Your task to perform on an android device: Open network settings Image 0: 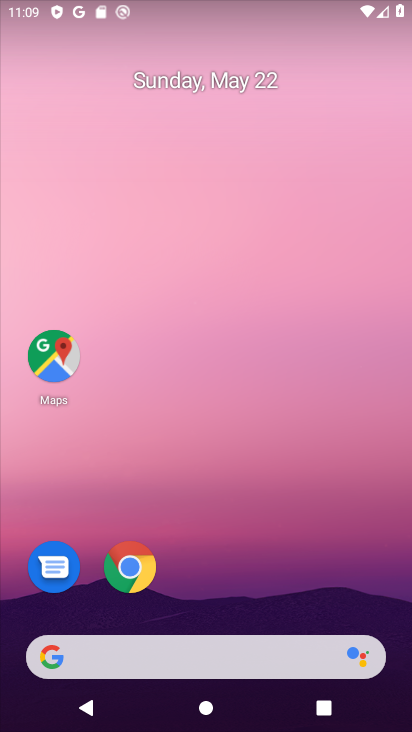
Step 0: drag from (291, 44) to (162, 633)
Your task to perform on an android device: Open network settings Image 1: 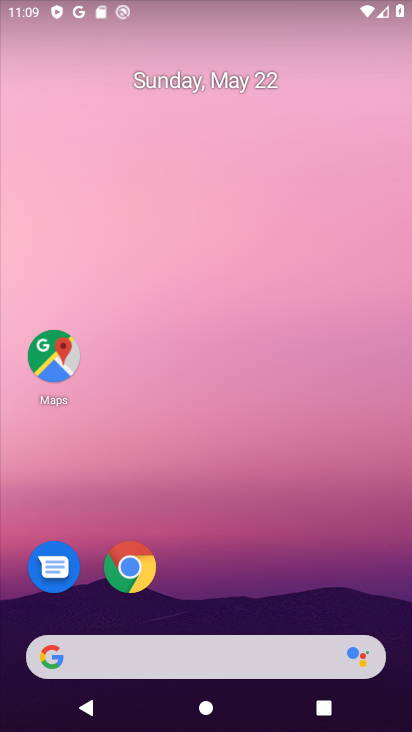
Step 1: drag from (284, 110) to (209, 429)
Your task to perform on an android device: Open network settings Image 2: 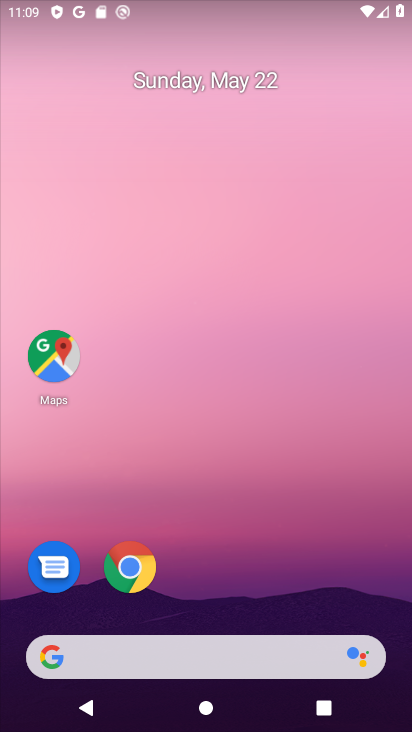
Step 2: drag from (207, 137) to (198, 666)
Your task to perform on an android device: Open network settings Image 3: 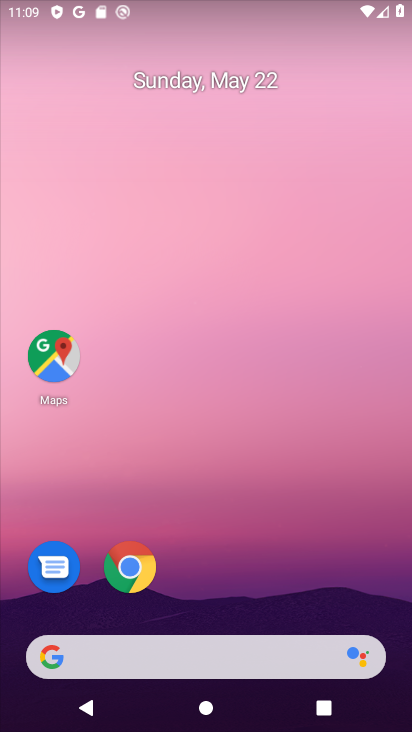
Step 3: drag from (209, 17) to (247, 409)
Your task to perform on an android device: Open network settings Image 4: 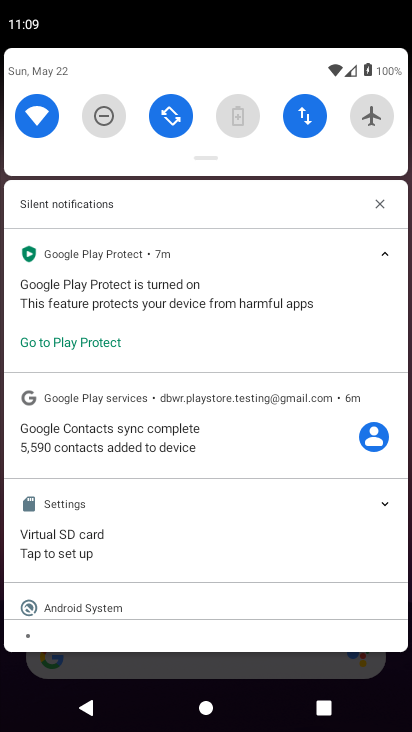
Step 4: click (300, 119)
Your task to perform on an android device: Open network settings Image 5: 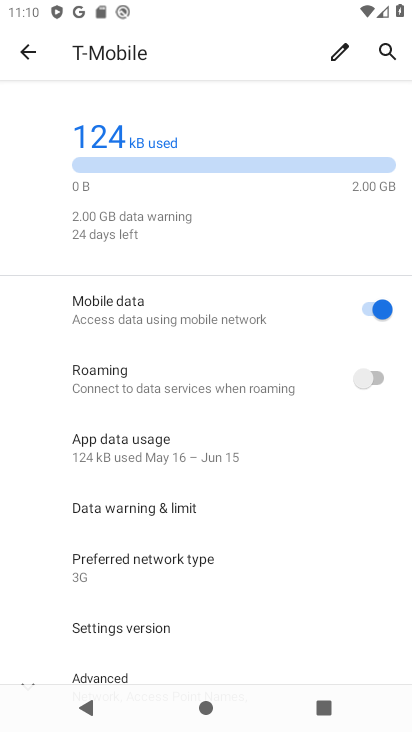
Step 5: task complete